Your task to perform on an android device: Go to display settings Image 0: 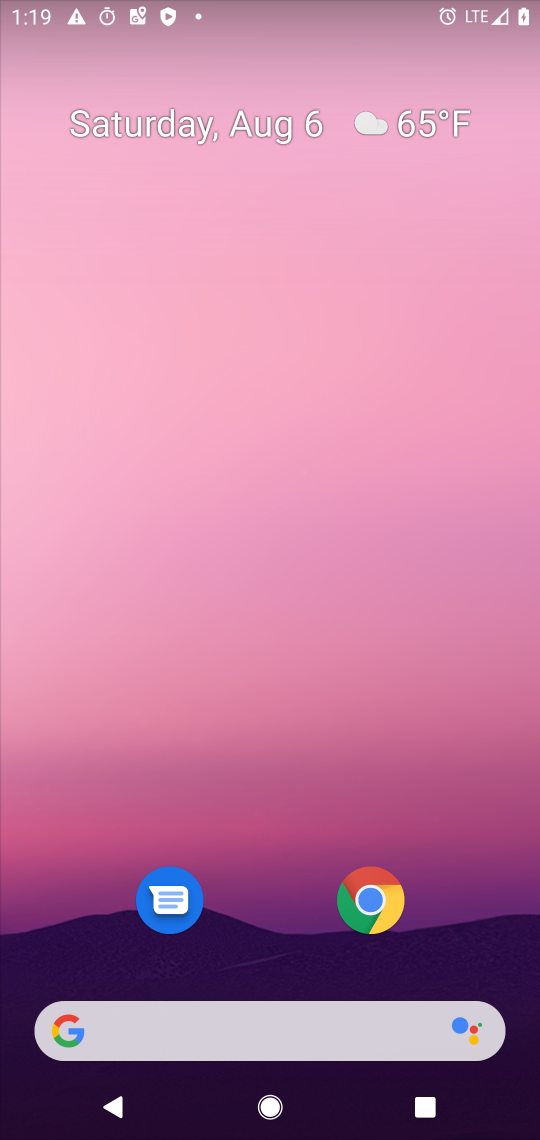
Step 0: drag from (261, 958) to (253, 85)
Your task to perform on an android device: Go to display settings Image 1: 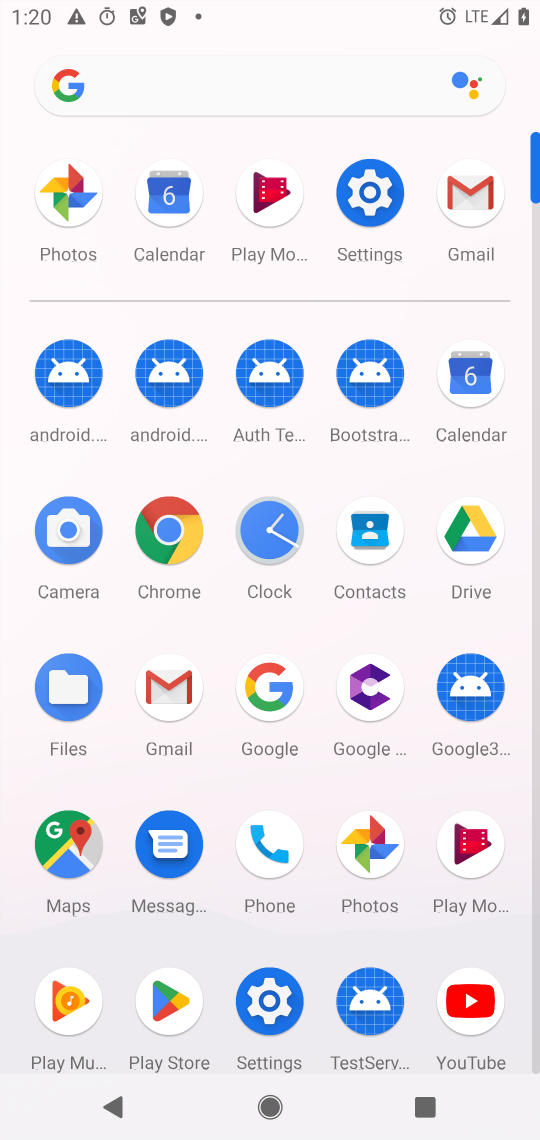
Step 1: drag from (274, 968) to (273, 171)
Your task to perform on an android device: Go to display settings Image 2: 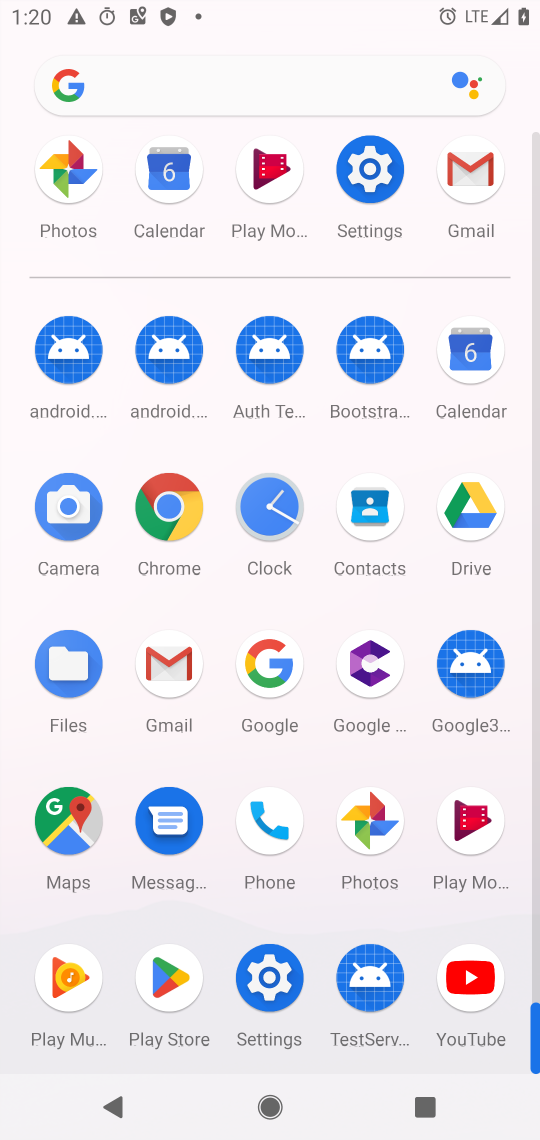
Step 2: click (368, 171)
Your task to perform on an android device: Go to display settings Image 3: 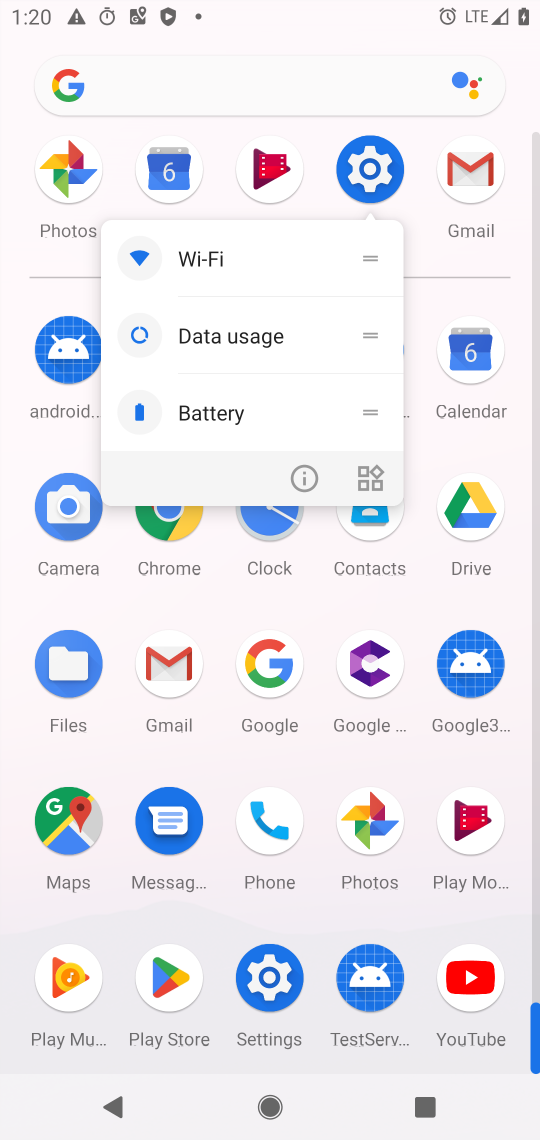
Step 3: click (368, 171)
Your task to perform on an android device: Go to display settings Image 4: 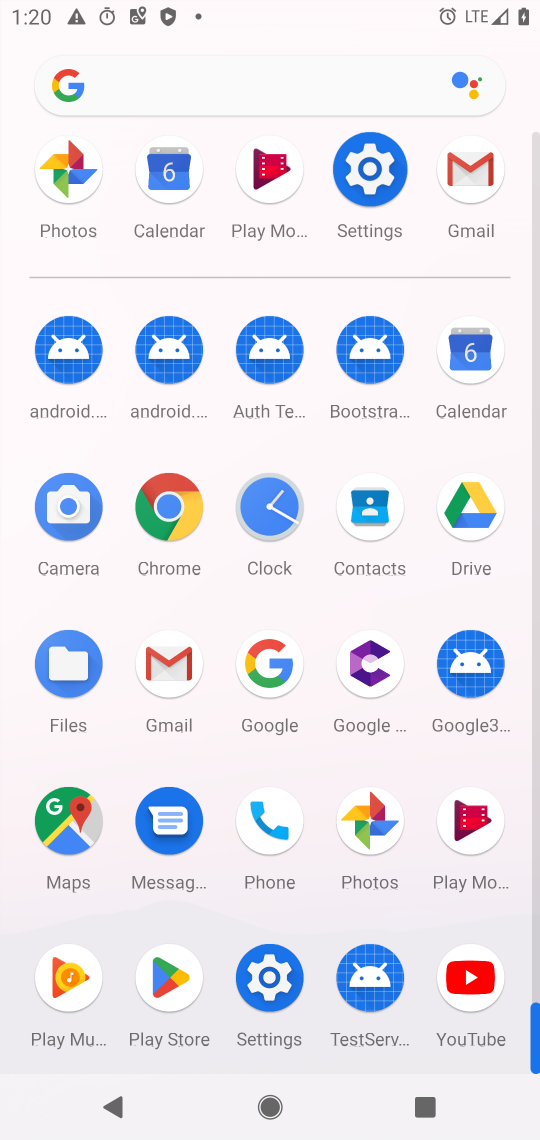
Step 4: click (368, 171)
Your task to perform on an android device: Go to display settings Image 5: 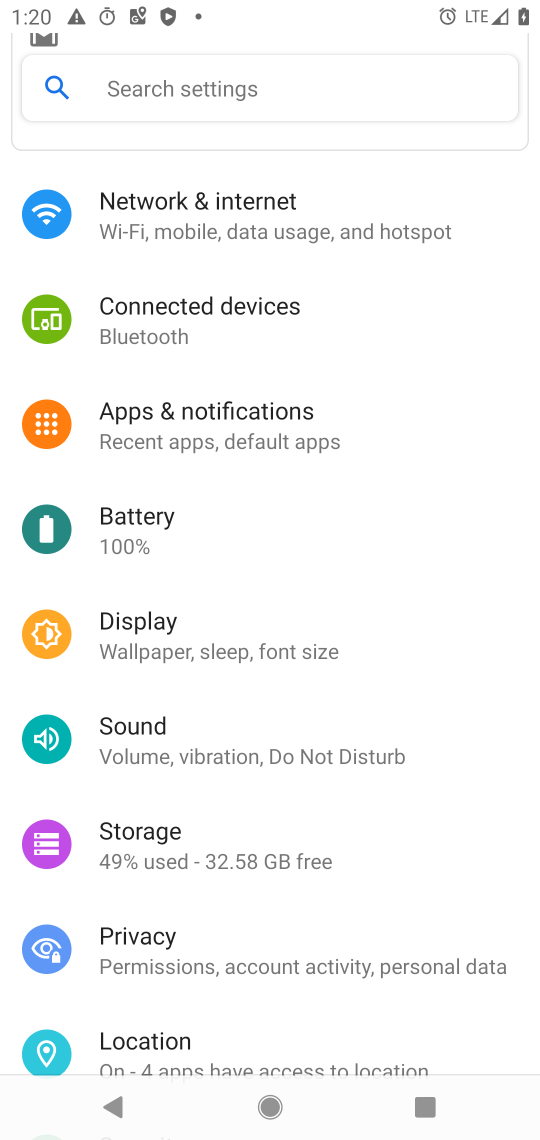
Step 5: click (134, 629)
Your task to perform on an android device: Go to display settings Image 6: 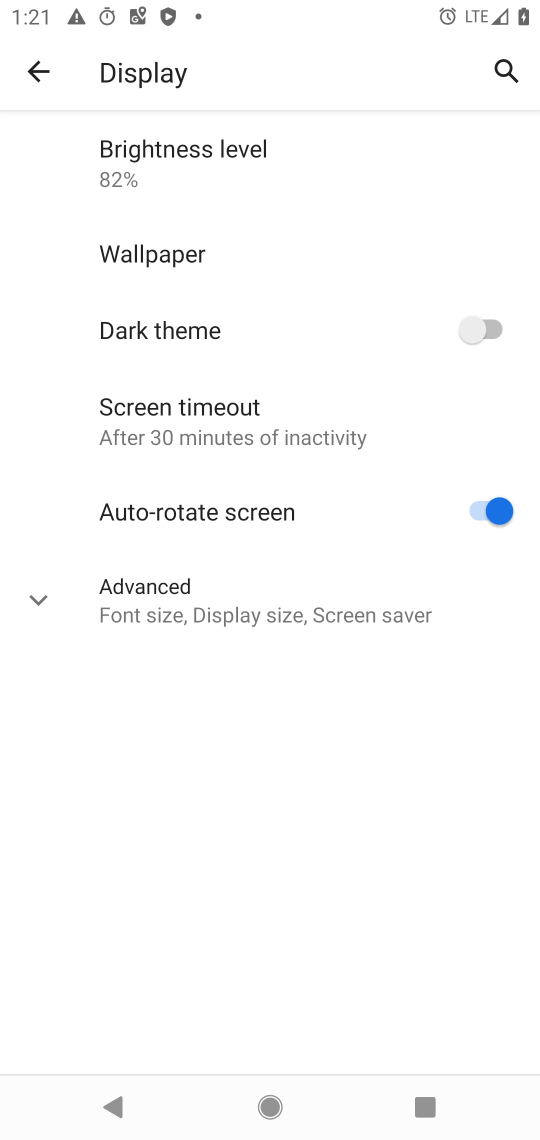
Step 6: task complete